Your task to perform on an android device: Go to notification settings Image 0: 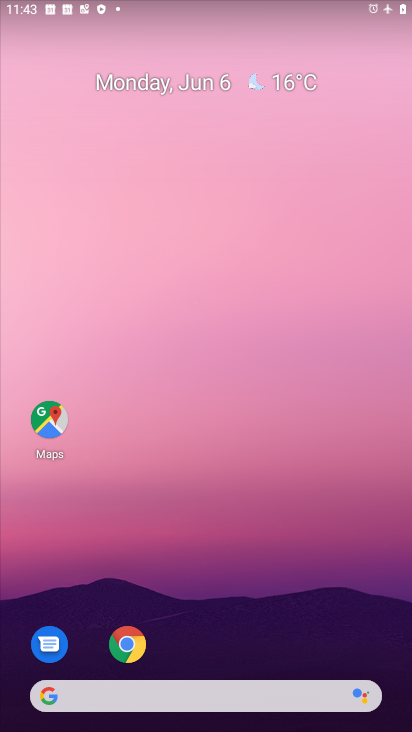
Step 0: drag from (146, 634) to (209, 108)
Your task to perform on an android device: Go to notification settings Image 1: 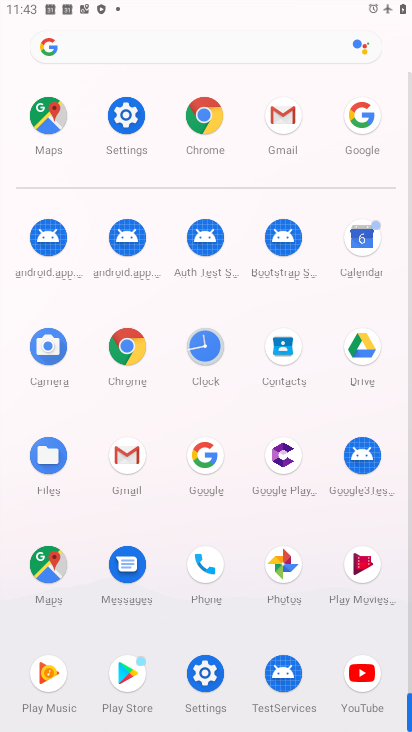
Step 1: click (214, 666)
Your task to perform on an android device: Go to notification settings Image 2: 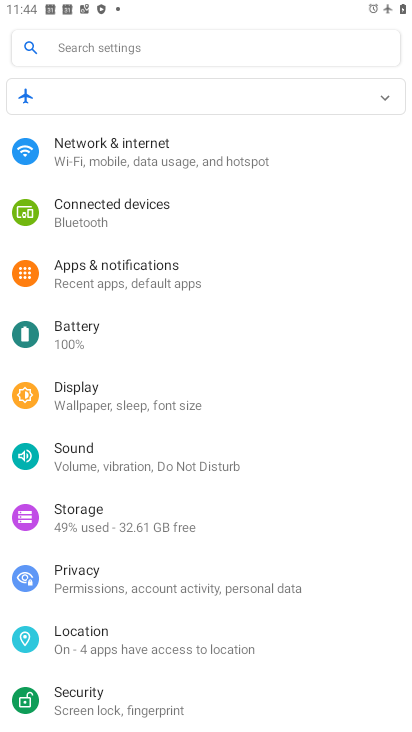
Step 2: click (117, 280)
Your task to perform on an android device: Go to notification settings Image 3: 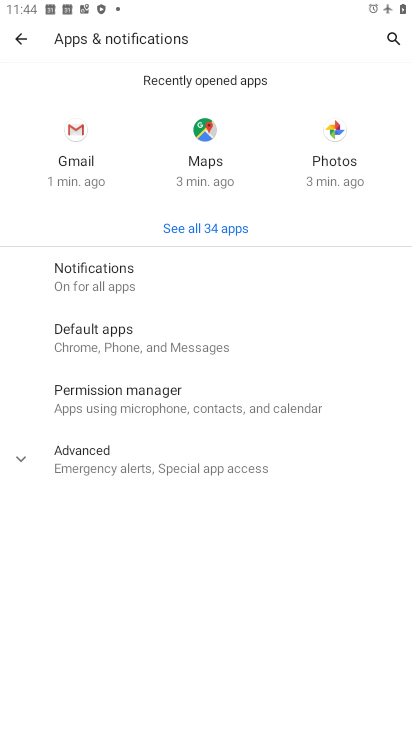
Step 3: click (104, 301)
Your task to perform on an android device: Go to notification settings Image 4: 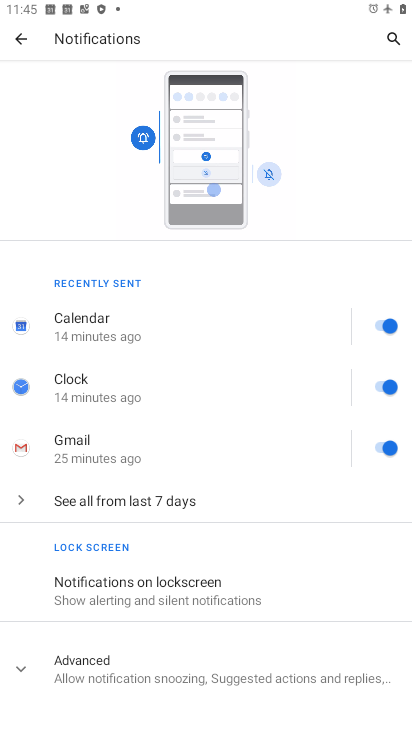
Step 4: task complete